Your task to perform on an android device: Go to sound settings Image 0: 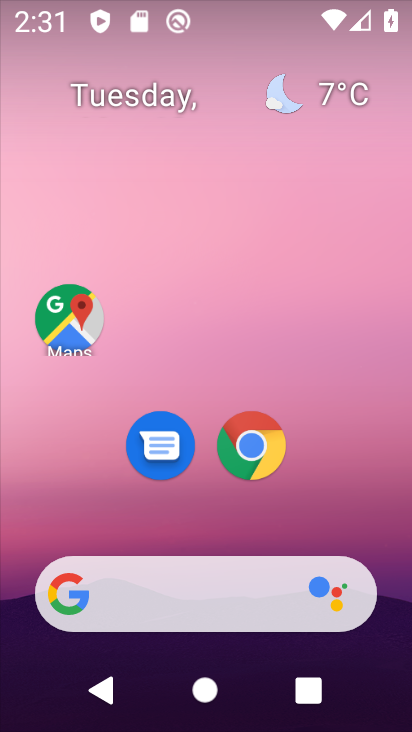
Step 0: drag from (150, 527) to (135, 17)
Your task to perform on an android device: Go to sound settings Image 1: 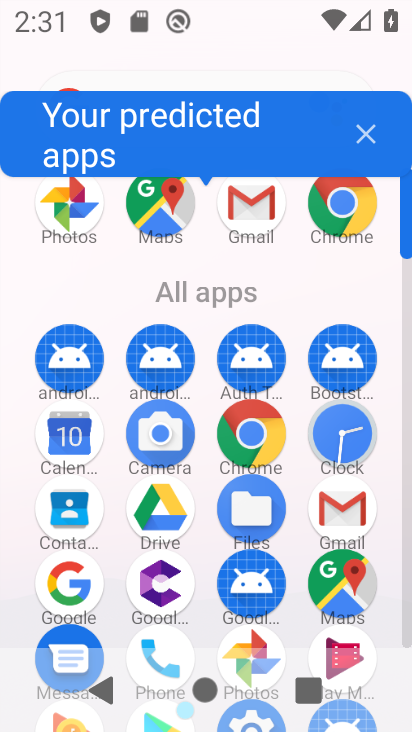
Step 1: drag from (132, 660) to (228, 305)
Your task to perform on an android device: Go to sound settings Image 2: 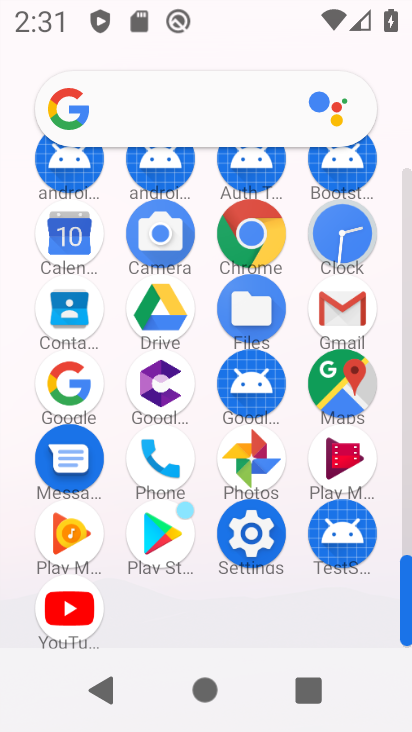
Step 2: click (268, 510)
Your task to perform on an android device: Go to sound settings Image 3: 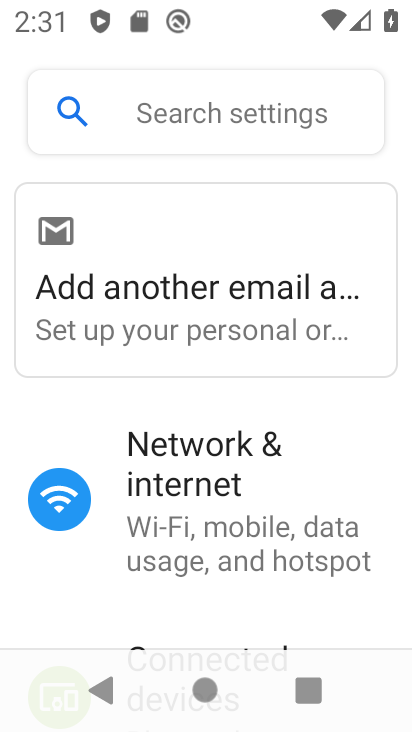
Step 3: drag from (192, 636) to (310, 194)
Your task to perform on an android device: Go to sound settings Image 4: 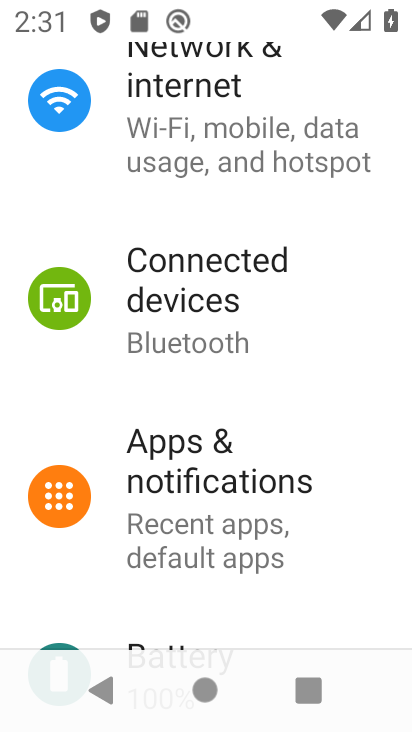
Step 4: drag from (178, 621) to (291, 263)
Your task to perform on an android device: Go to sound settings Image 5: 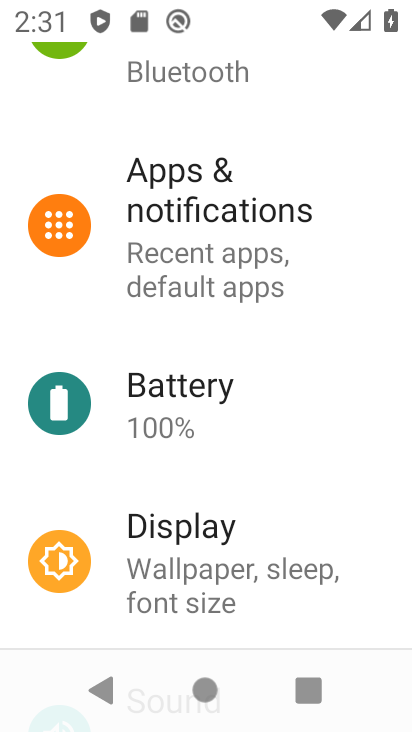
Step 5: drag from (198, 619) to (299, 266)
Your task to perform on an android device: Go to sound settings Image 6: 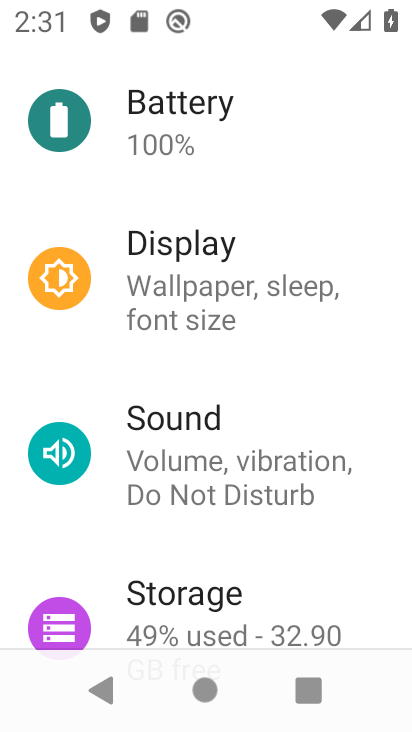
Step 6: click (279, 486)
Your task to perform on an android device: Go to sound settings Image 7: 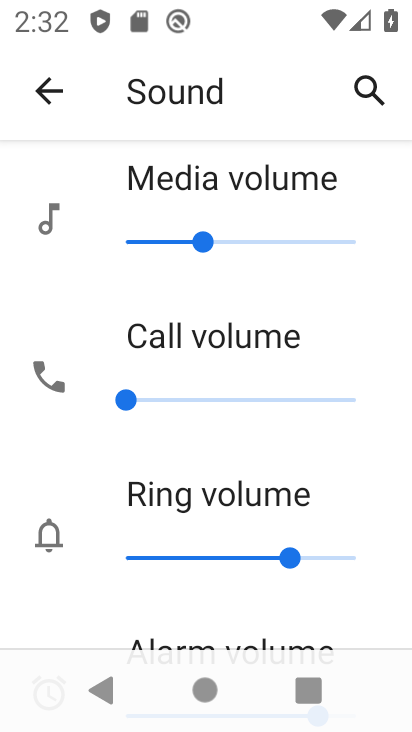
Step 7: task complete